Your task to perform on an android device: open app "Lyft - Rideshare, Bikes, Scooters & Transit" Image 0: 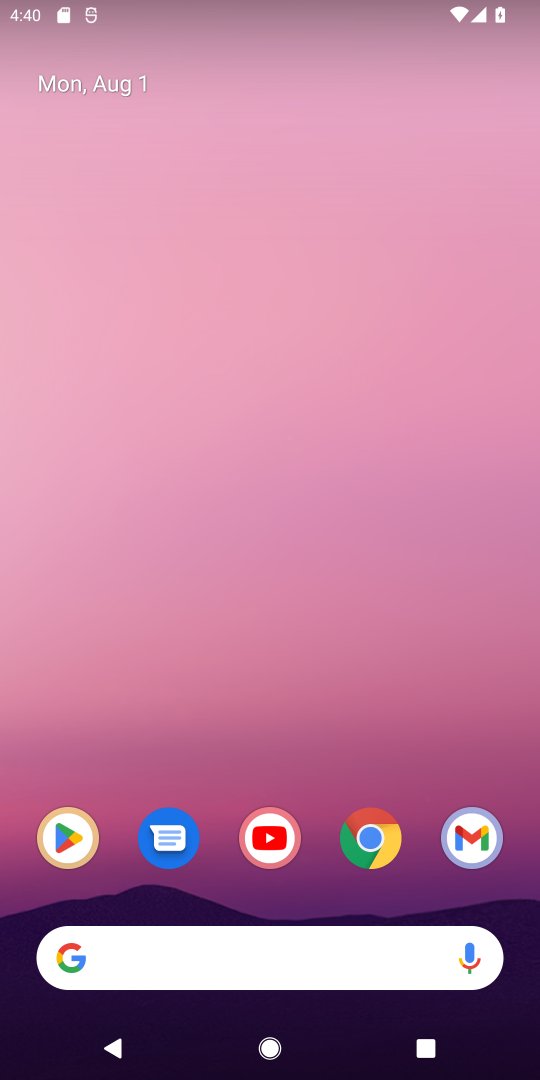
Step 0: click (59, 848)
Your task to perform on an android device: open app "Lyft - Rideshare, Bikes, Scooters & Transit" Image 1: 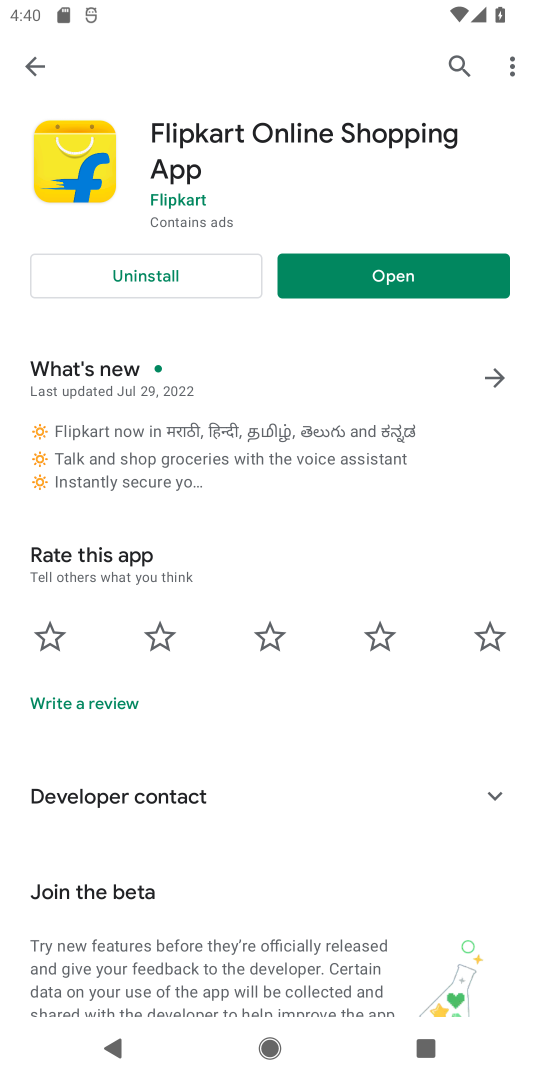
Step 1: click (458, 69)
Your task to perform on an android device: open app "Lyft - Rideshare, Bikes, Scooters & Transit" Image 2: 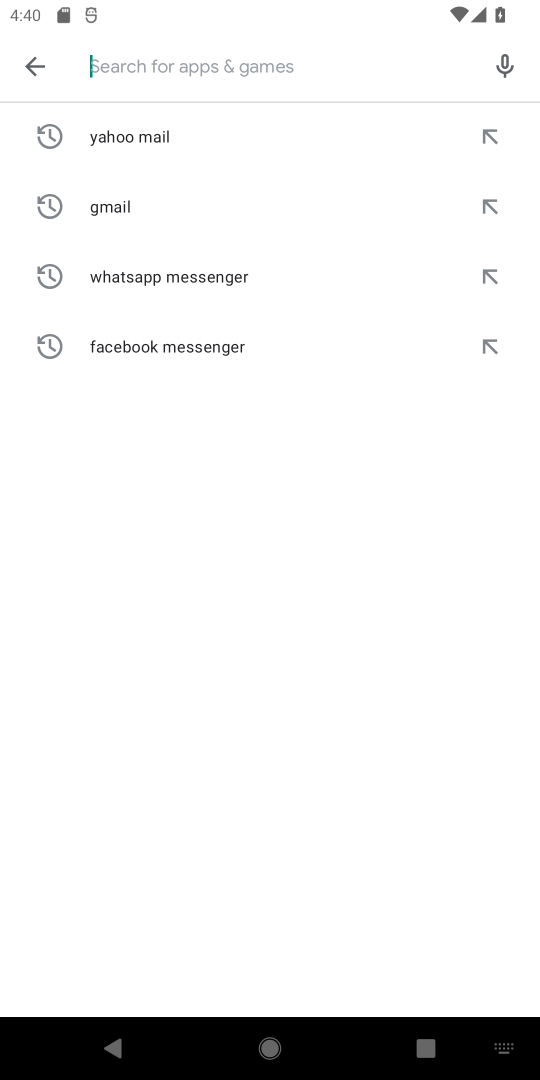
Step 2: type "Lyft - Rideshare, Bikes, Scooters & Transit"
Your task to perform on an android device: open app "Lyft - Rideshare, Bikes, Scooters & Transit" Image 3: 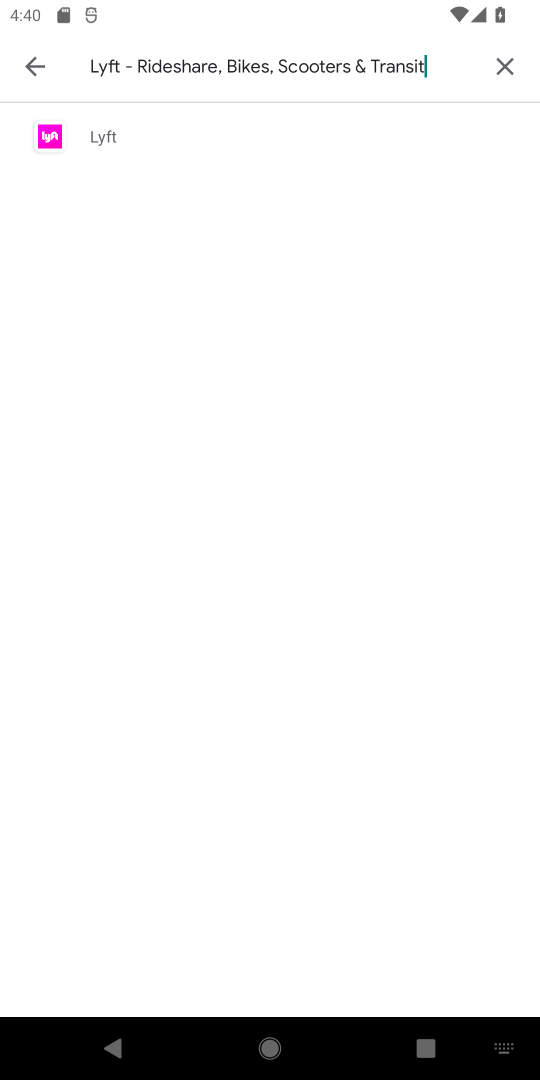
Step 3: type ""
Your task to perform on an android device: open app "Lyft - Rideshare, Bikes, Scooters & Transit" Image 4: 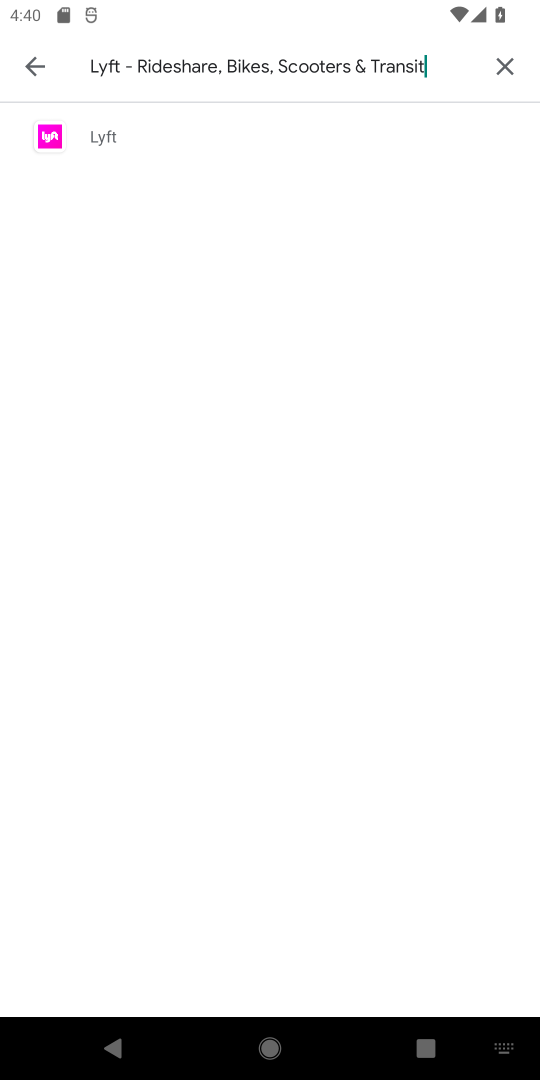
Step 4: click (121, 133)
Your task to perform on an android device: open app "Lyft - Rideshare, Bikes, Scooters & Transit" Image 5: 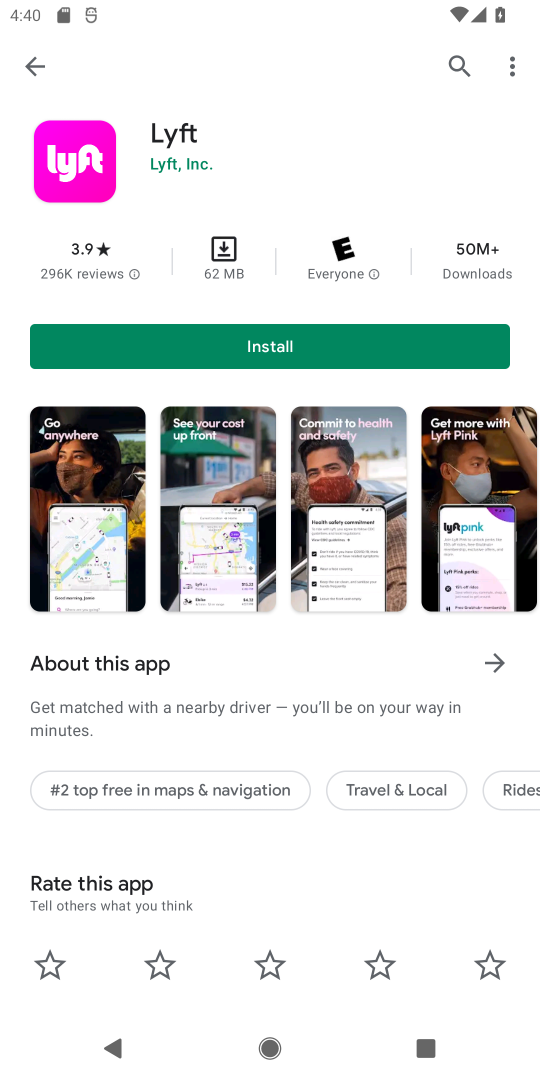
Step 5: task complete